Your task to perform on an android device: Clear the cart on newegg.com. Search for bose soundlink on newegg.com, select the first entry, add it to the cart, then select checkout. Image 0: 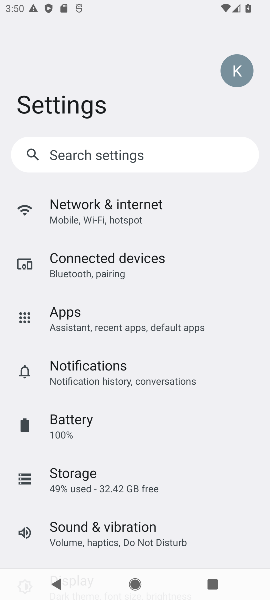
Step 0: press home button
Your task to perform on an android device: Clear the cart on newegg.com. Search for bose soundlink on newegg.com, select the first entry, add it to the cart, then select checkout. Image 1: 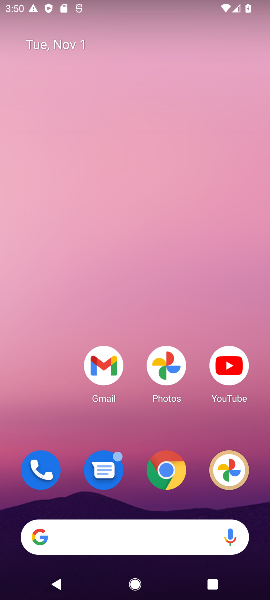
Step 1: click (169, 478)
Your task to perform on an android device: Clear the cart on newegg.com. Search for bose soundlink on newegg.com, select the first entry, add it to the cart, then select checkout. Image 2: 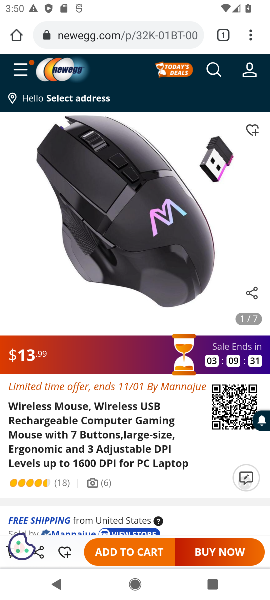
Step 2: click (134, 39)
Your task to perform on an android device: Clear the cart on newegg.com. Search for bose soundlink on newegg.com, select the first entry, add it to the cart, then select checkout. Image 3: 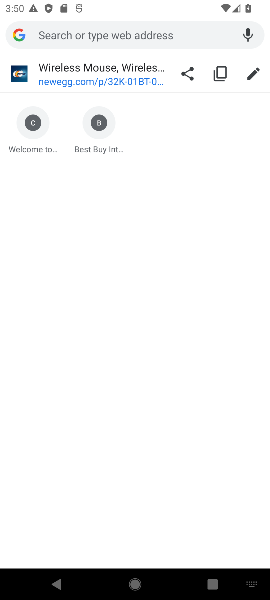
Step 3: type "newegg"
Your task to perform on an android device: Clear the cart on newegg.com. Search for bose soundlink on newegg.com, select the first entry, add it to the cart, then select checkout. Image 4: 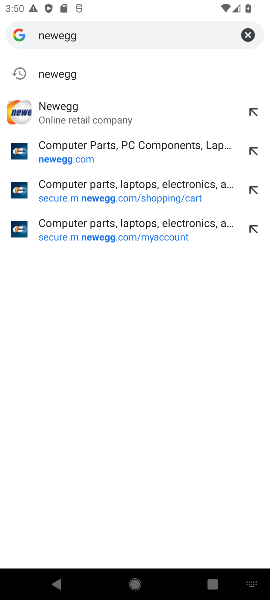
Step 4: press enter
Your task to perform on an android device: Clear the cart on newegg.com. Search for bose soundlink on newegg.com, select the first entry, add it to the cart, then select checkout. Image 5: 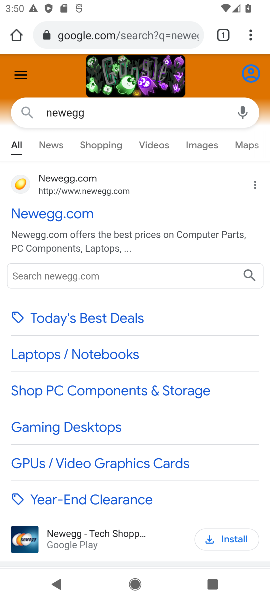
Step 5: click (60, 215)
Your task to perform on an android device: Clear the cart on newegg.com. Search for bose soundlink on newegg.com, select the first entry, add it to the cart, then select checkout. Image 6: 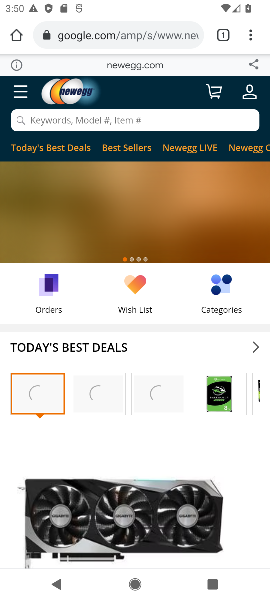
Step 6: click (213, 98)
Your task to perform on an android device: Clear the cart on newegg.com. Search for bose soundlink on newegg.com, select the first entry, add it to the cart, then select checkout. Image 7: 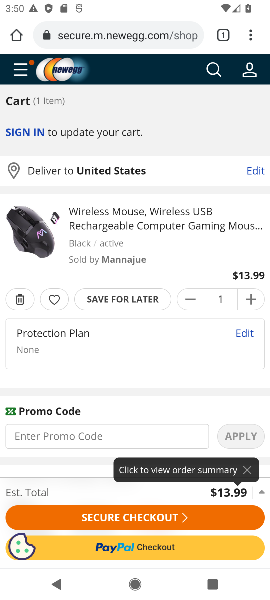
Step 7: click (190, 302)
Your task to perform on an android device: Clear the cart on newegg.com. Search for bose soundlink on newegg.com, select the first entry, add it to the cart, then select checkout. Image 8: 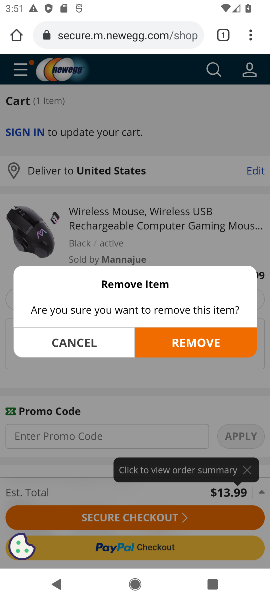
Step 8: click (194, 347)
Your task to perform on an android device: Clear the cart on newegg.com. Search for bose soundlink on newegg.com, select the first entry, add it to the cart, then select checkout. Image 9: 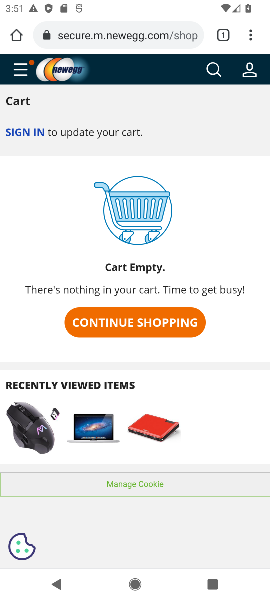
Step 9: click (116, 37)
Your task to perform on an android device: Clear the cart on newegg.com. Search for bose soundlink on newegg.com, select the first entry, add it to the cart, then select checkout. Image 10: 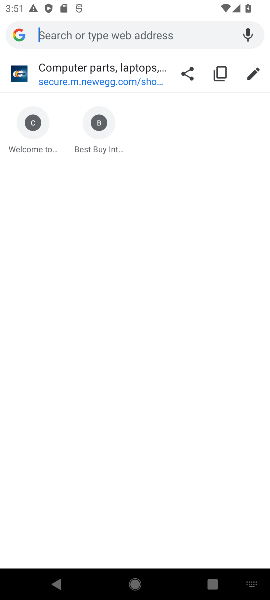
Step 10: press back button
Your task to perform on an android device: Clear the cart on newegg.com. Search for bose soundlink on newegg.com, select the first entry, add it to the cart, then select checkout. Image 11: 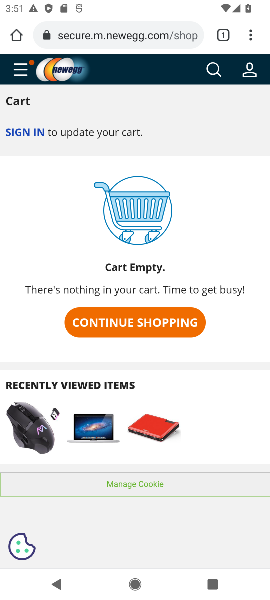
Step 11: click (216, 69)
Your task to perform on an android device: Clear the cart on newegg.com. Search for bose soundlink on newegg.com, select the first entry, add it to the cart, then select checkout. Image 12: 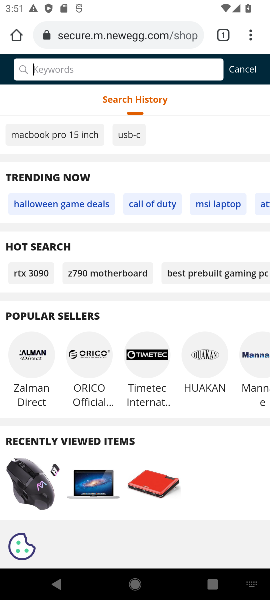
Step 12: type "bose soundlink"
Your task to perform on an android device: Clear the cart on newegg.com. Search for bose soundlink on newegg.com, select the first entry, add it to the cart, then select checkout. Image 13: 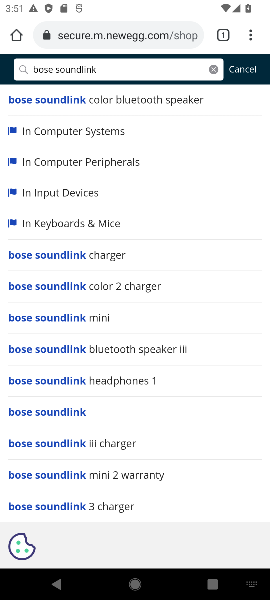
Step 13: press enter
Your task to perform on an android device: Clear the cart on newegg.com. Search for bose soundlink on newegg.com, select the first entry, add it to the cart, then select checkout. Image 14: 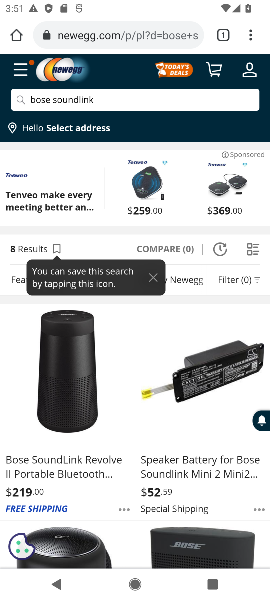
Step 14: click (69, 436)
Your task to perform on an android device: Clear the cart on newegg.com. Search for bose soundlink on newegg.com, select the first entry, add it to the cart, then select checkout. Image 15: 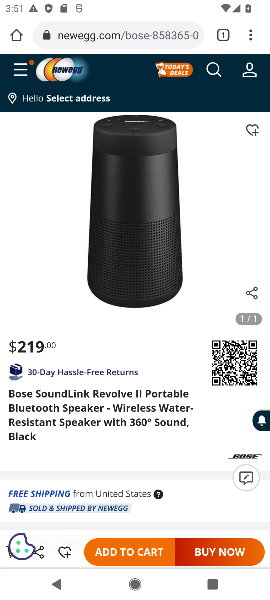
Step 15: click (122, 552)
Your task to perform on an android device: Clear the cart on newegg.com. Search for bose soundlink on newegg.com, select the first entry, add it to the cart, then select checkout. Image 16: 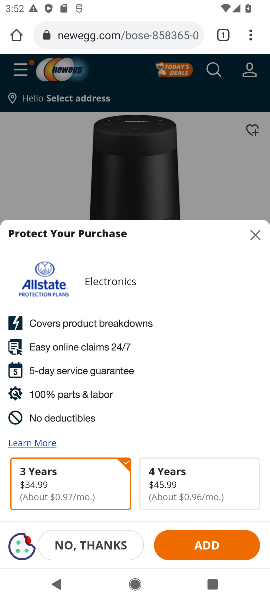
Step 16: click (109, 545)
Your task to perform on an android device: Clear the cart on newegg.com. Search for bose soundlink on newegg.com, select the first entry, add it to the cart, then select checkout. Image 17: 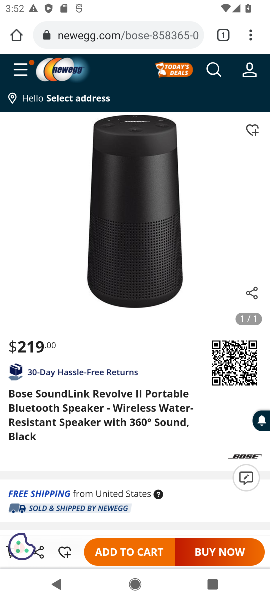
Step 17: click (251, 71)
Your task to perform on an android device: Clear the cart on newegg.com. Search for bose soundlink on newegg.com, select the first entry, add it to the cart, then select checkout. Image 18: 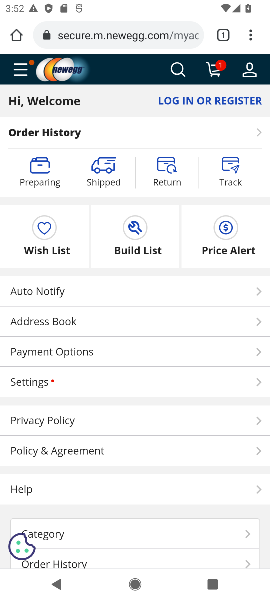
Step 18: click (219, 65)
Your task to perform on an android device: Clear the cart on newegg.com. Search for bose soundlink on newegg.com, select the first entry, add it to the cart, then select checkout. Image 19: 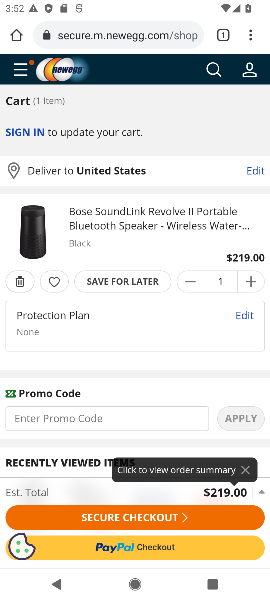
Step 19: click (94, 521)
Your task to perform on an android device: Clear the cart on newegg.com. Search for bose soundlink on newegg.com, select the first entry, add it to the cart, then select checkout. Image 20: 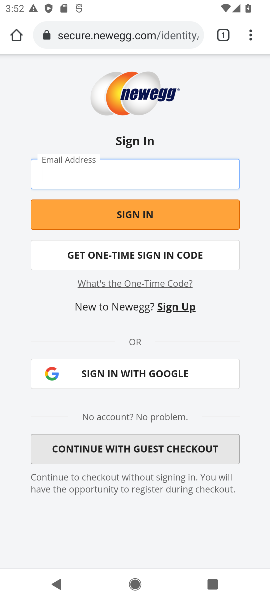
Step 20: task complete